Your task to perform on an android device: Play the last video I watched on Youtube Image 0: 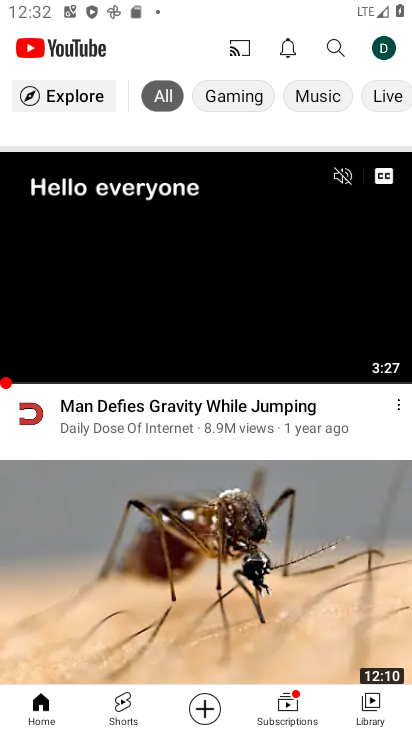
Step 0: press home button
Your task to perform on an android device: Play the last video I watched on Youtube Image 1: 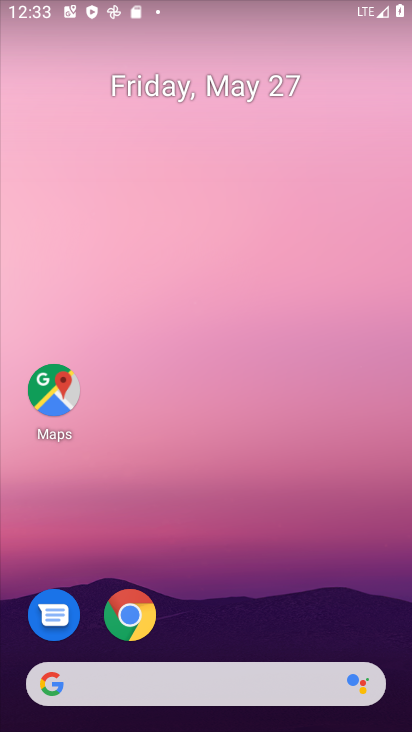
Step 1: drag from (243, 682) to (349, 39)
Your task to perform on an android device: Play the last video I watched on Youtube Image 2: 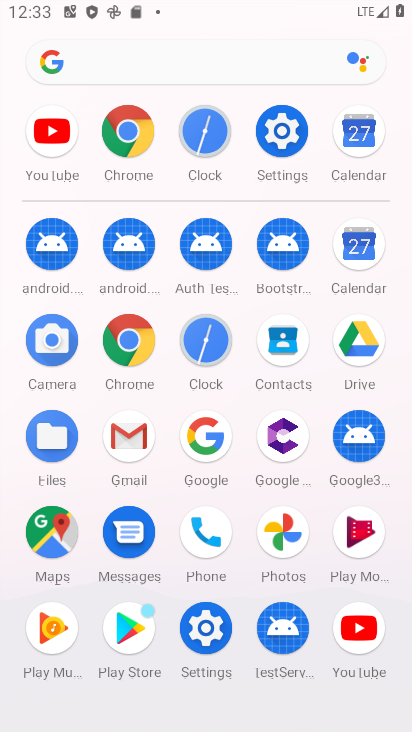
Step 2: click (353, 637)
Your task to perform on an android device: Play the last video I watched on Youtube Image 3: 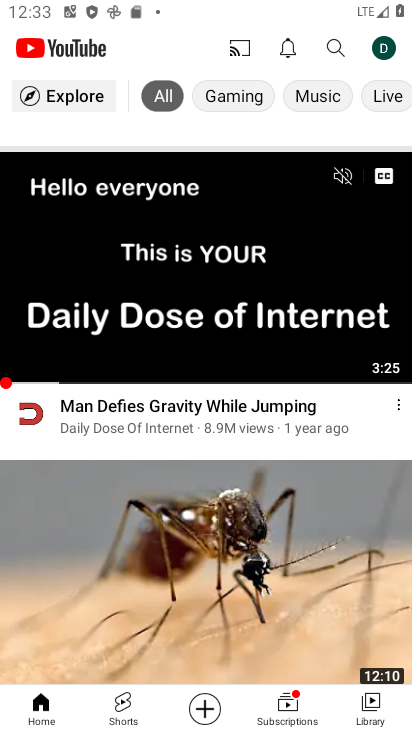
Step 3: click (387, 699)
Your task to perform on an android device: Play the last video I watched on Youtube Image 4: 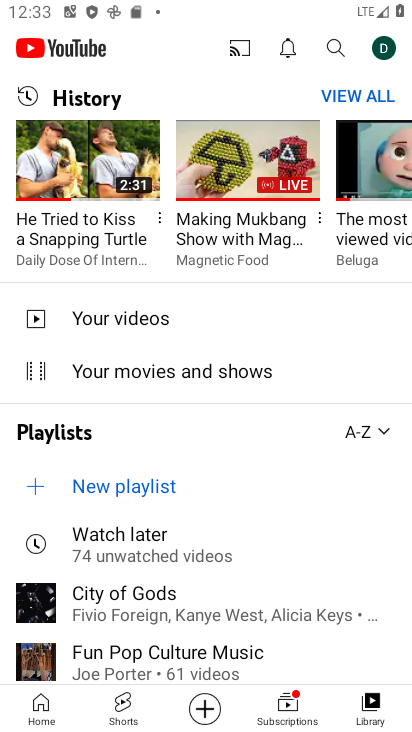
Step 4: click (133, 178)
Your task to perform on an android device: Play the last video I watched on Youtube Image 5: 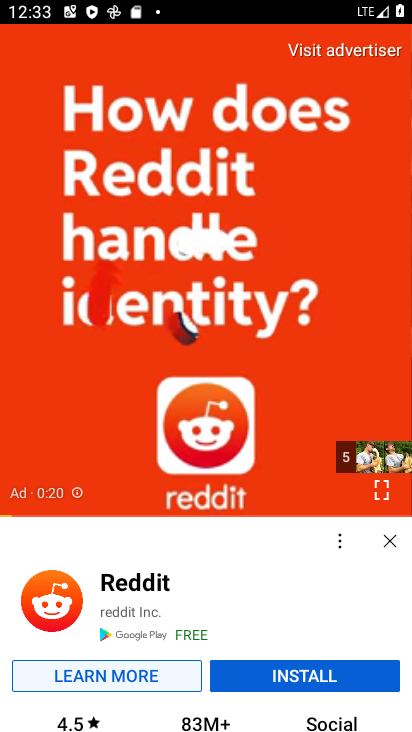
Step 5: task complete